Your task to perform on an android device: open app "Firefox Browser" Image 0: 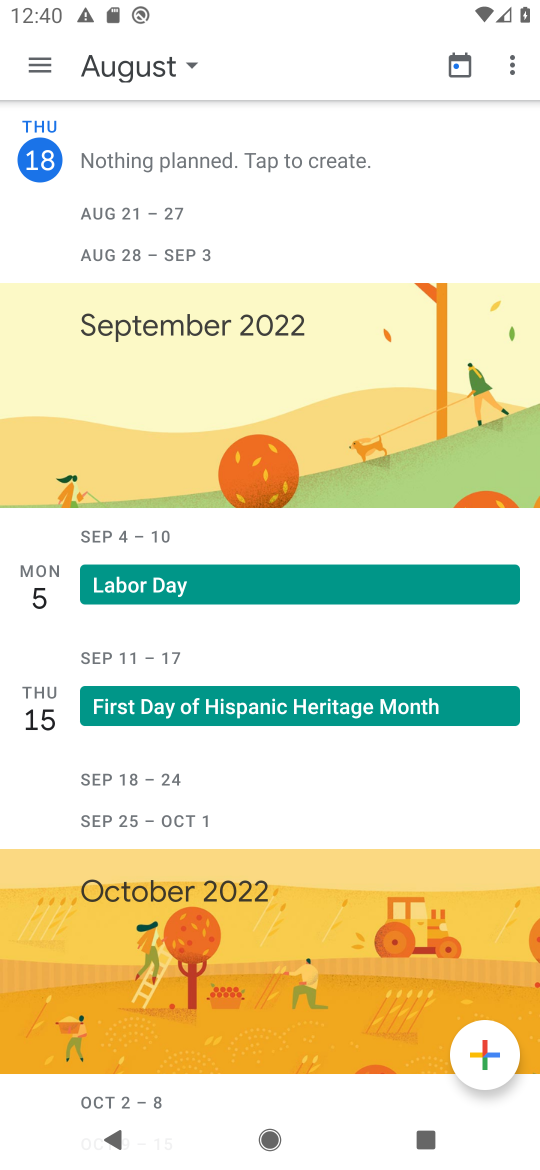
Step 0: press home button
Your task to perform on an android device: open app "Firefox Browser" Image 1: 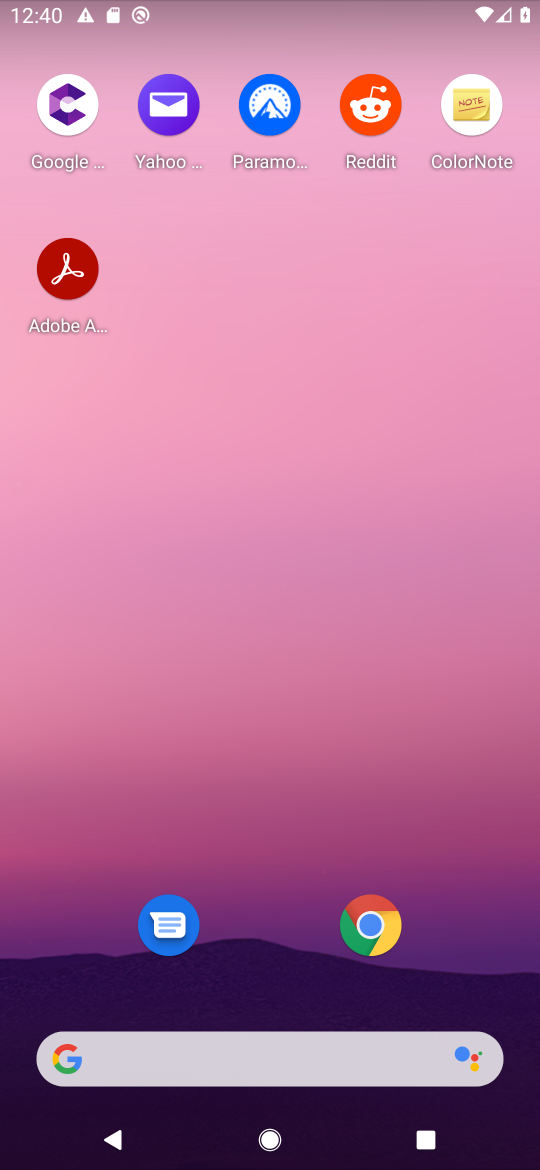
Step 1: drag from (216, 594) to (220, 260)
Your task to perform on an android device: open app "Firefox Browser" Image 2: 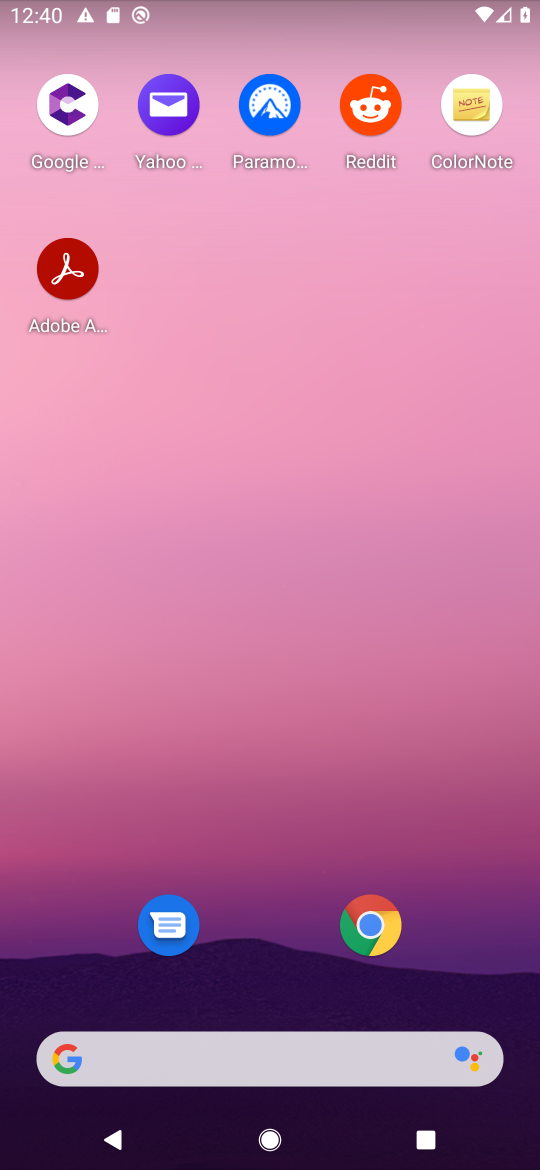
Step 2: drag from (266, 928) to (262, 65)
Your task to perform on an android device: open app "Firefox Browser" Image 3: 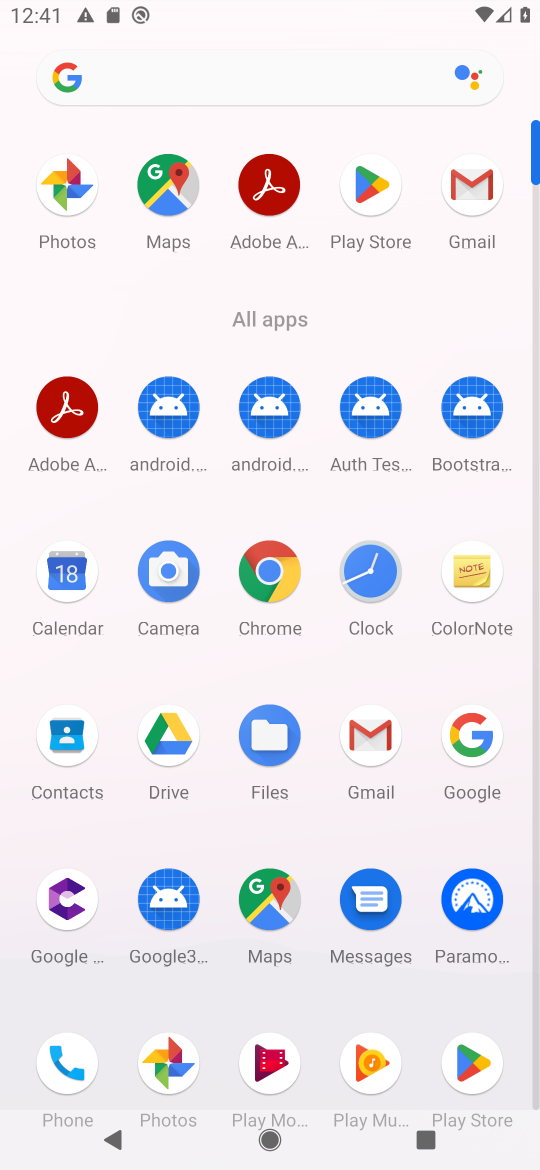
Step 3: click (373, 193)
Your task to perform on an android device: open app "Firefox Browser" Image 4: 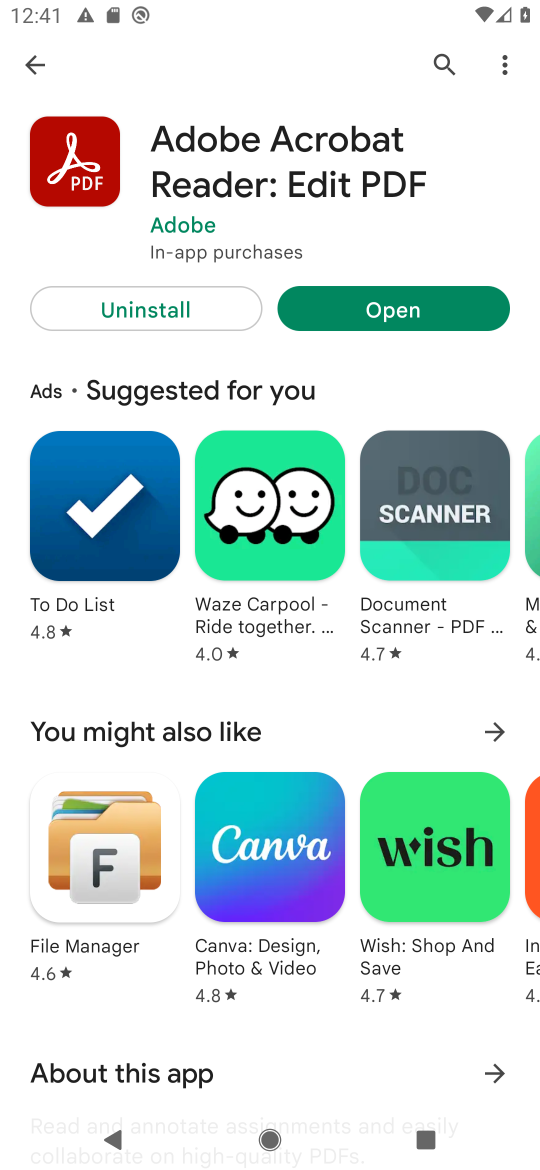
Step 4: click (40, 61)
Your task to perform on an android device: open app "Firefox Browser" Image 5: 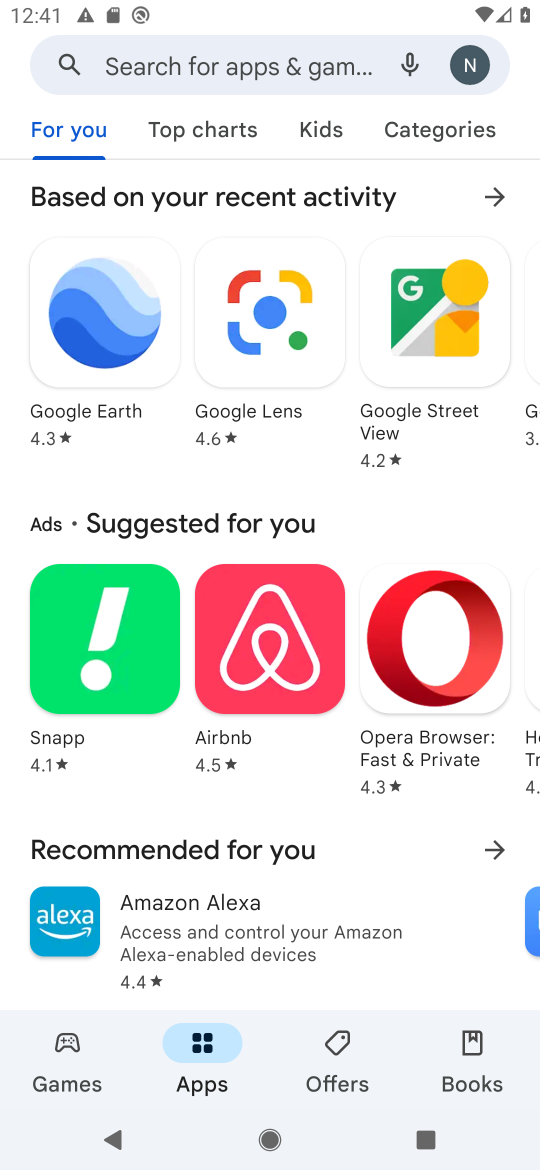
Step 5: click (280, 59)
Your task to perform on an android device: open app "Firefox Browser" Image 6: 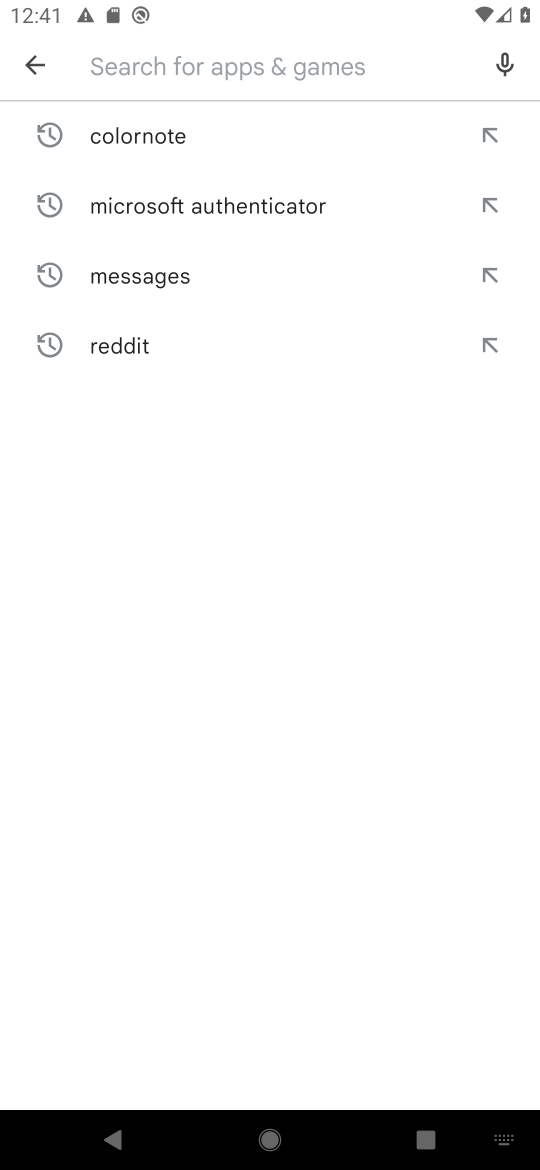
Step 6: type "Firefox Browser"
Your task to perform on an android device: open app "Firefox Browser" Image 7: 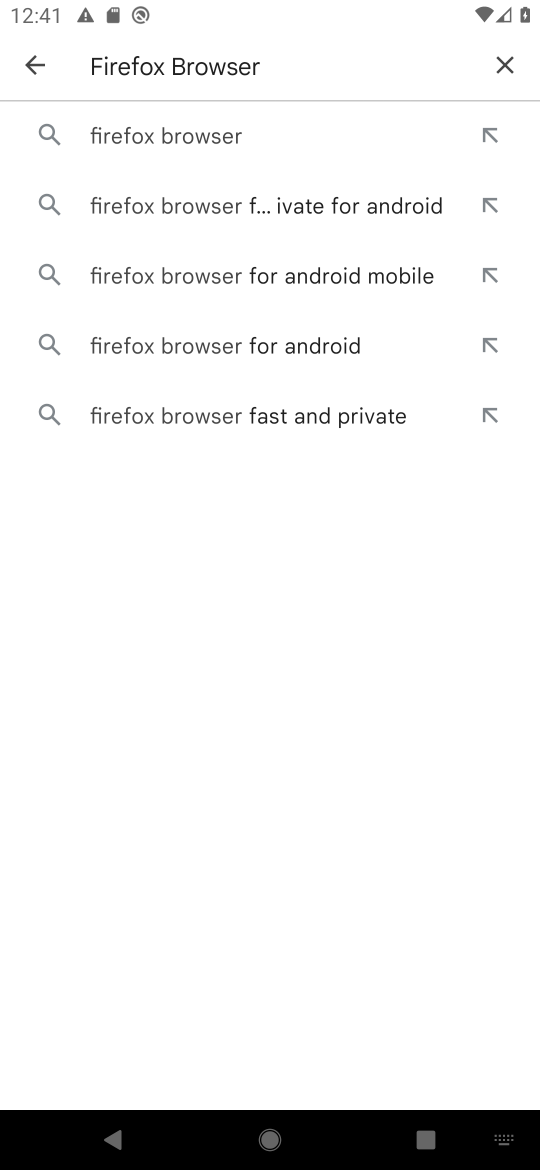
Step 7: click (149, 125)
Your task to perform on an android device: open app "Firefox Browser" Image 8: 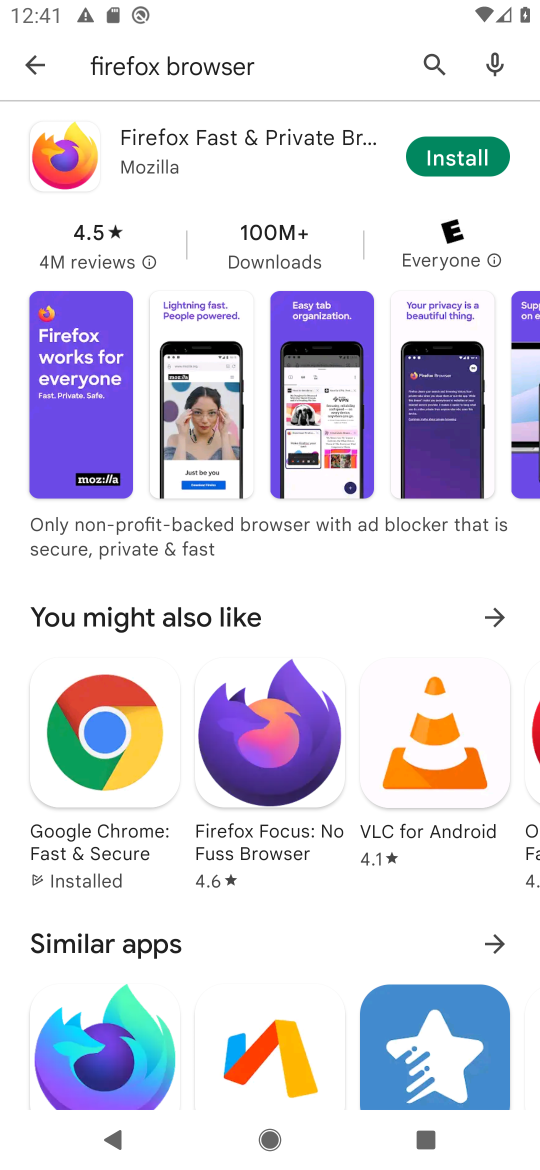
Step 8: click (477, 163)
Your task to perform on an android device: open app "Firefox Browser" Image 9: 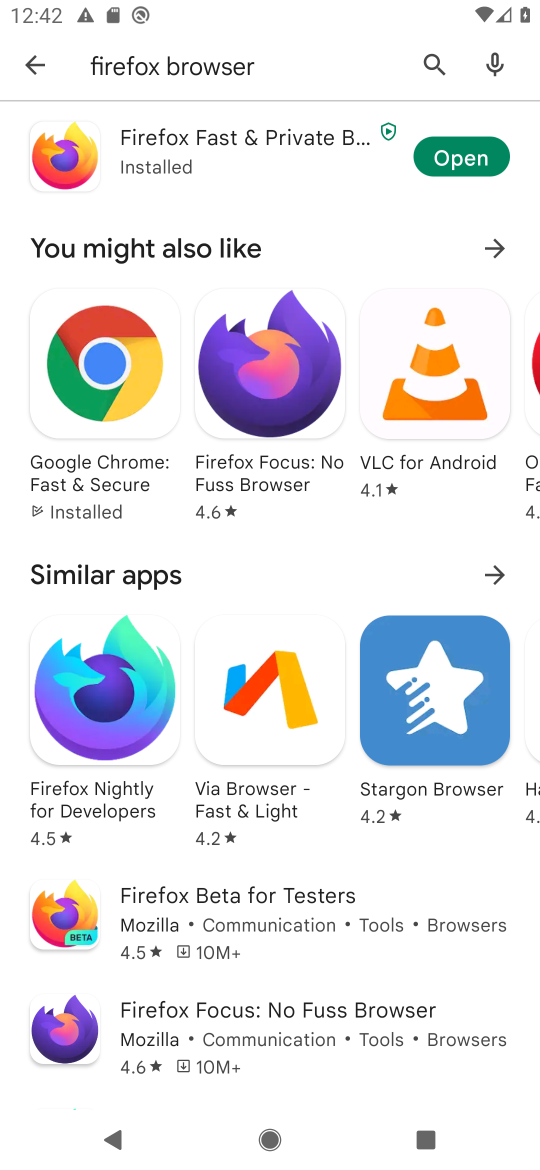
Step 9: click (477, 163)
Your task to perform on an android device: open app "Firefox Browser" Image 10: 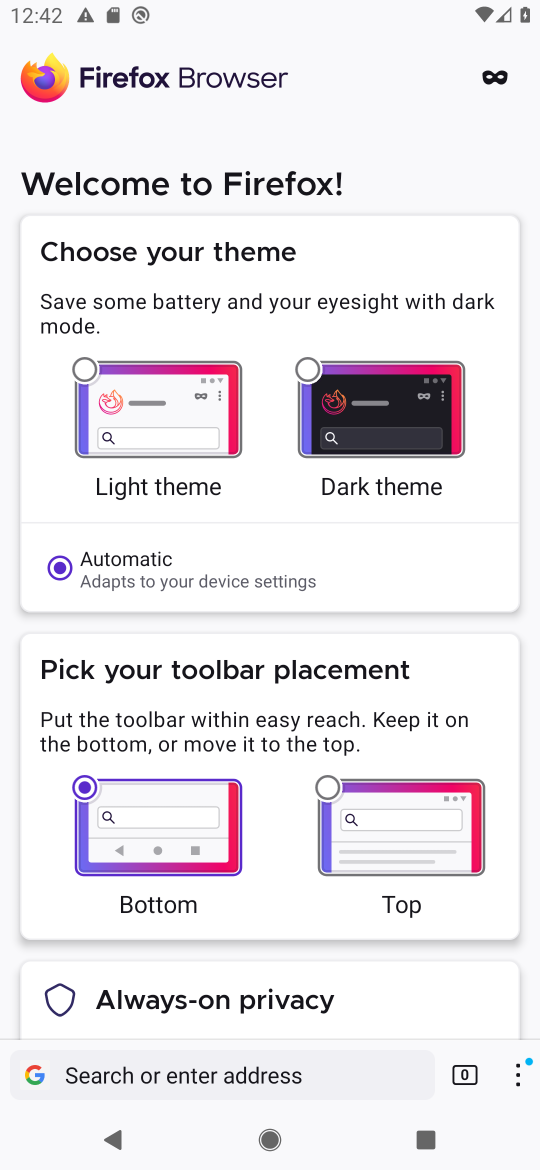
Step 10: task complete